Your task to perform on an android device: What's on my calendar tomorrow? Image 0: 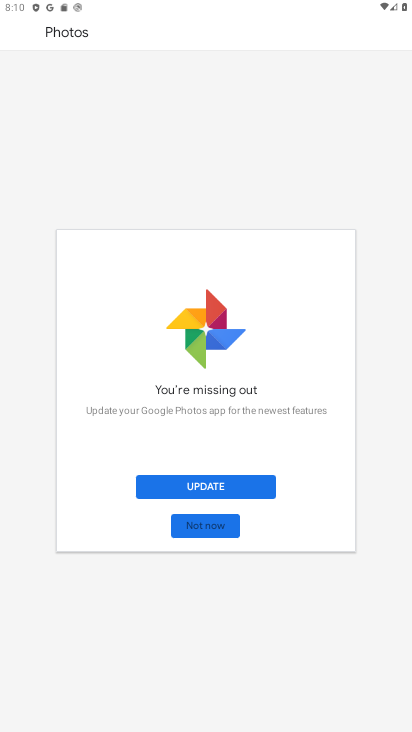
Step 0: press home button
Your task to perform on an android device: What's on my calendar tomorrow? Image 1: 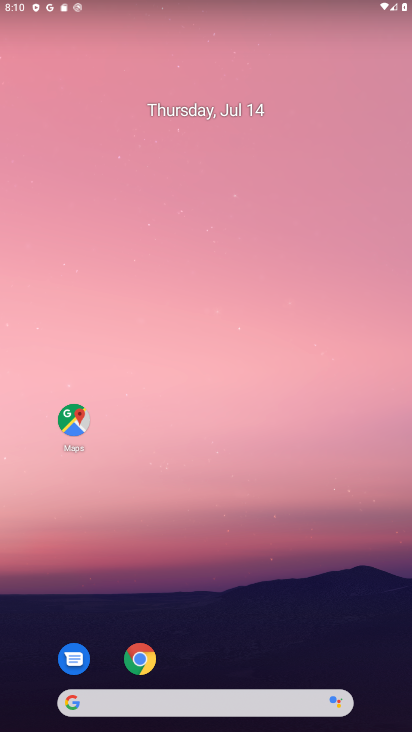
Step 1: drag from (225, 603) to (214, 184)
Your task to perform on an android device: What's on my calendar tomorrow? Image 2: 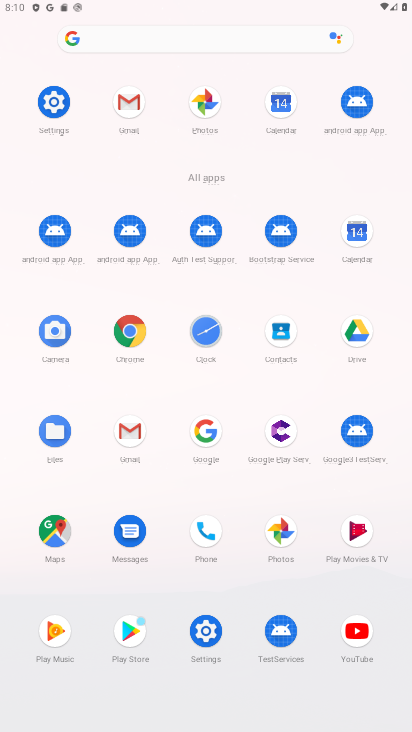
Step 2: click (356, 257)
Your task to perform on an android device: What's on my calendar tomorrow? Image 3: 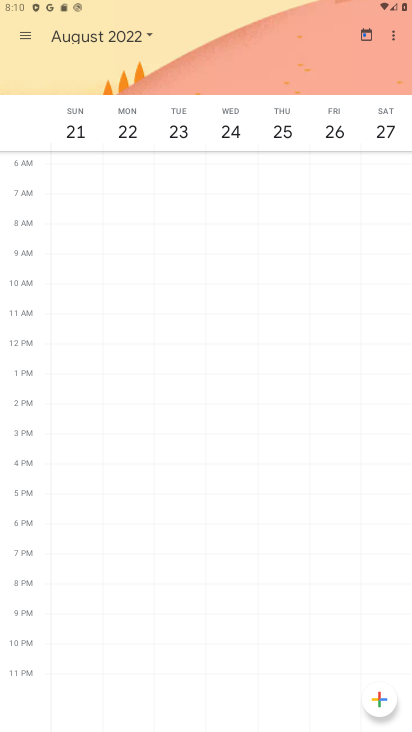
Step 3: click (25, 35)
Your task to perform on an android device: What's on my calendar tomorrow? Image 4: 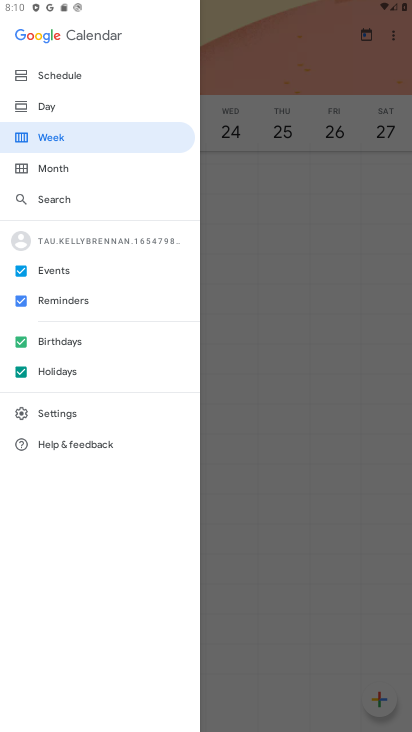
Step 4: click (62, 74)
Your task to perform on an android device: What's on my calendar tomorrow? Image 5: 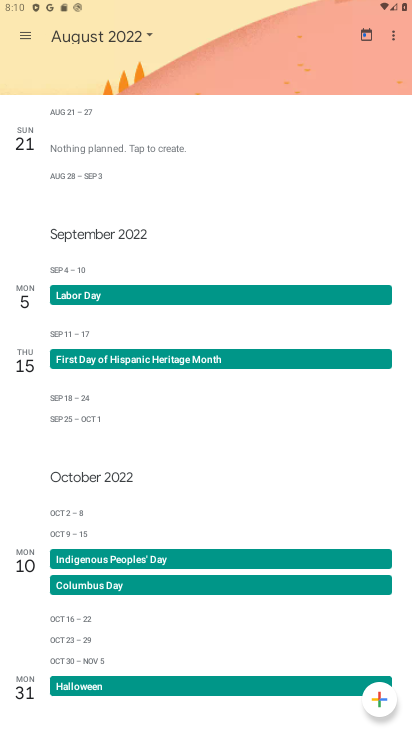
Step 5: click (89, 39)
Your task to perform on an android device: What's on my calendar tomorrow? Image 6: 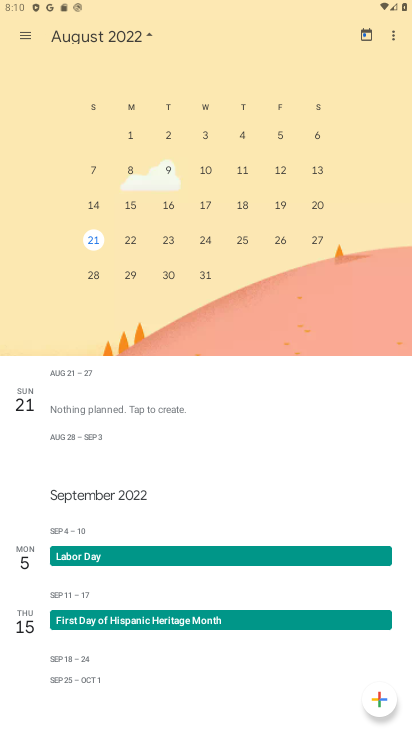
Step 6: drag from (180, 184) to (394, 220)
Your task to perform on an android device: What's on my calendar tomorrow? Image 7: 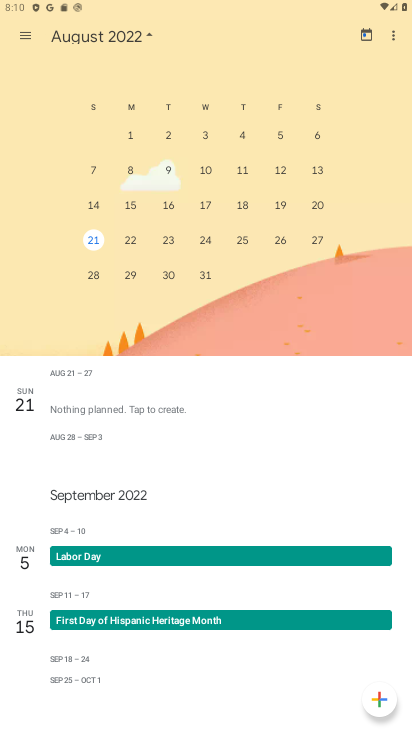
Step 7: drag from (105, 170) to (411, 169)
Your task to perform on an android device: What's on my calendar tomorrow? Image 8: 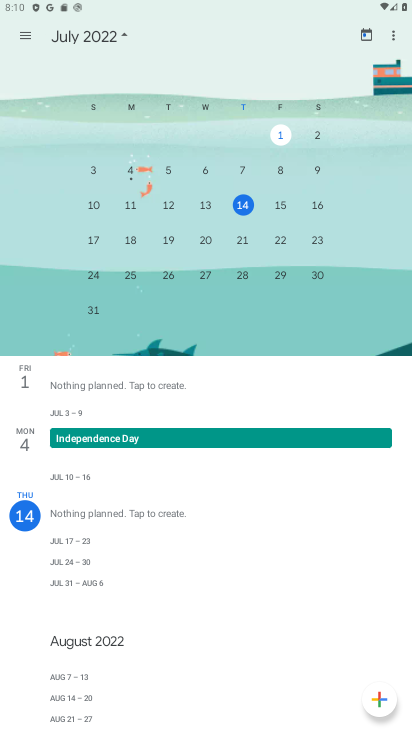
Step 8: click (283, 206)
Your task to perform on an android device: What's on my calendar tomorrow? Image 9: 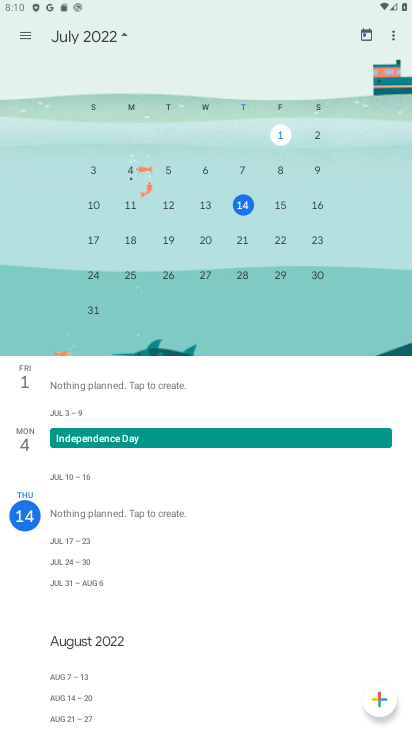
Step 9: click (283, 206)
Your task to perform on an android device: What's on my calendar tomorrow? Image 10: 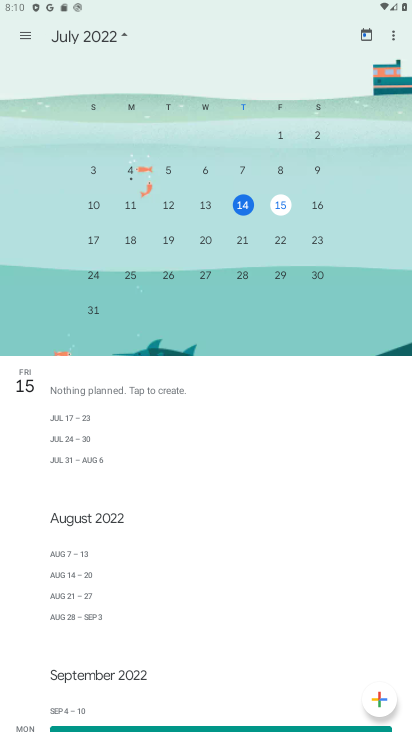
Step 10: task complete